Your task to perform on an android device: Go to network settings Image 0: 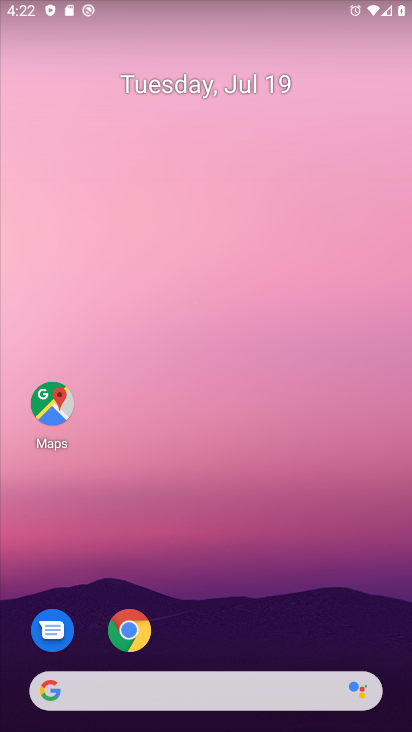
Step 0: drag from (170, 445) to (118, 58)
Your task to perform on an android device: Go to network settings Image 1: 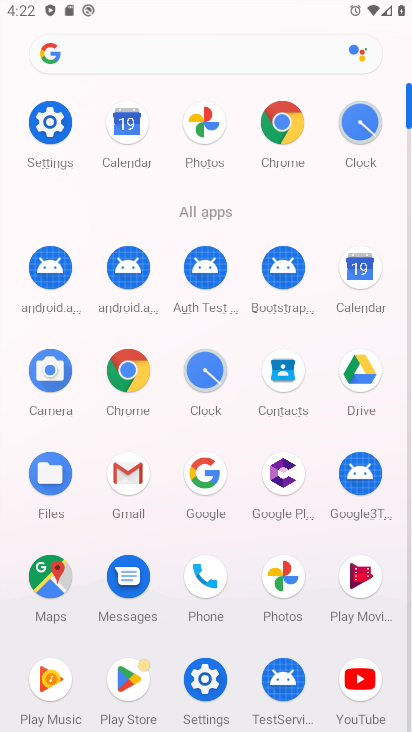
Step 1: click (52, 134)
Your task to perform on an android device: Go to network settings Image 2: 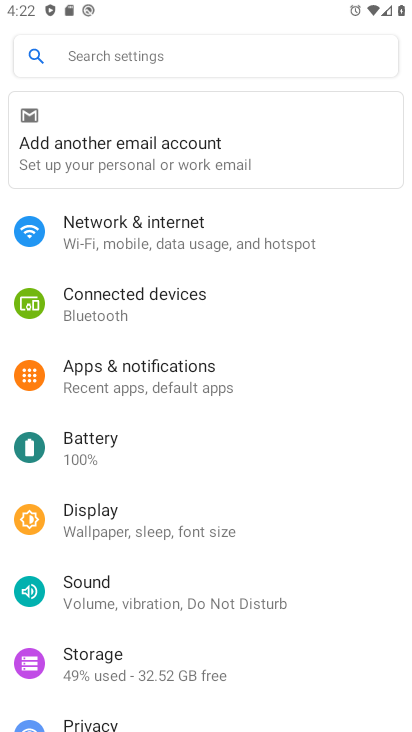
Step 2: click (117, 250)
Your task to perform on an android device: Go to network settings Image 3: 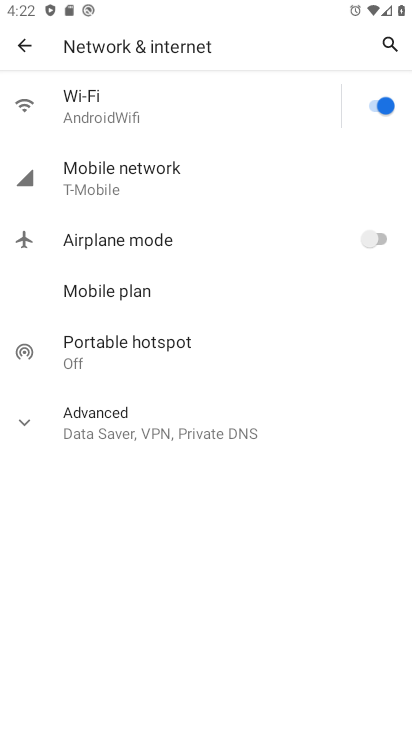
Step 3: task complete